Your task to perform on an android device: toggle location history Image 0: 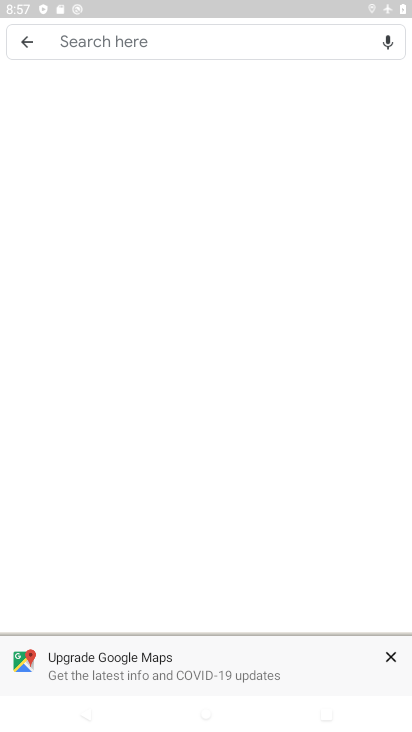
Step 0: click (263, 172)
Your task to perform on an android device: toggle location history Image 1: 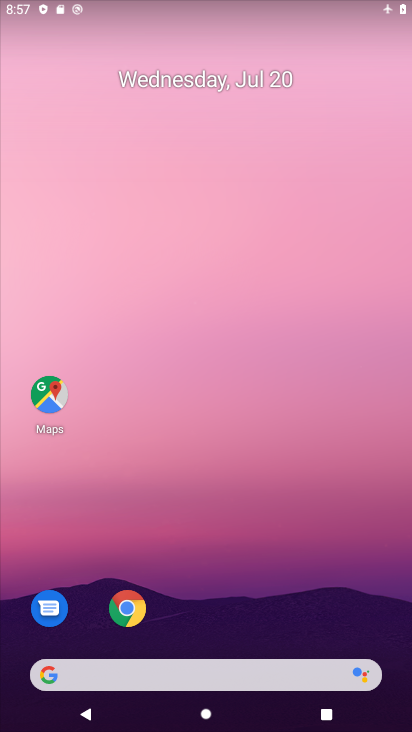
Step 1: drag from (257, 694) to (250, 121)
Your task to perform on an android device: toggle location history Image 2: 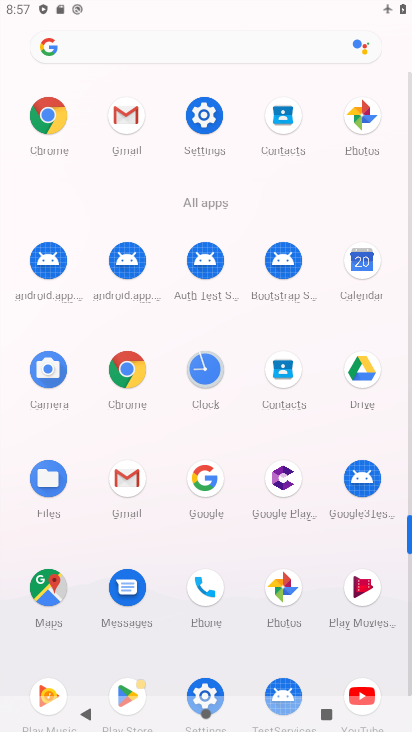
Step 2: click (218, 117)
Your task to perform on an android device: toggle location history Image 3: 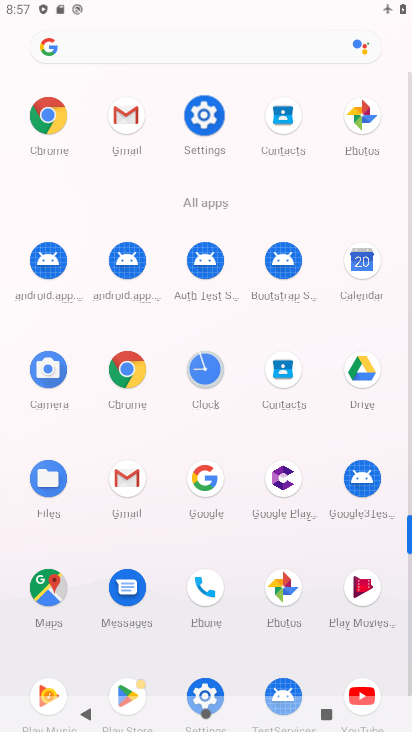
Step 3: click (216, 111)
Your task to perform on an android device: toggle location history Image 4: 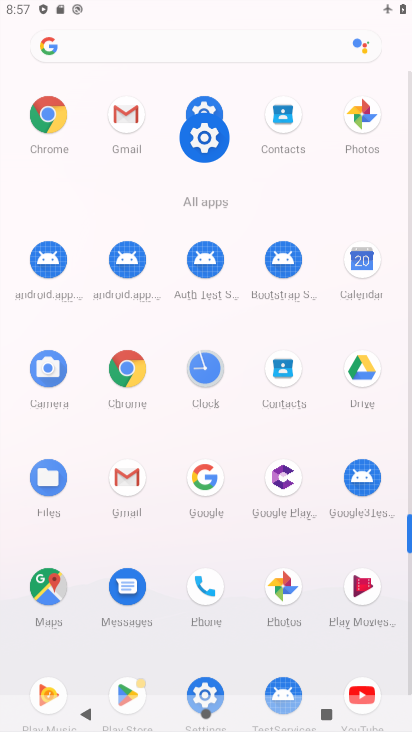
Step 4: click (216, 111)
Your task to perform on an android device: toggle location history Image 5: 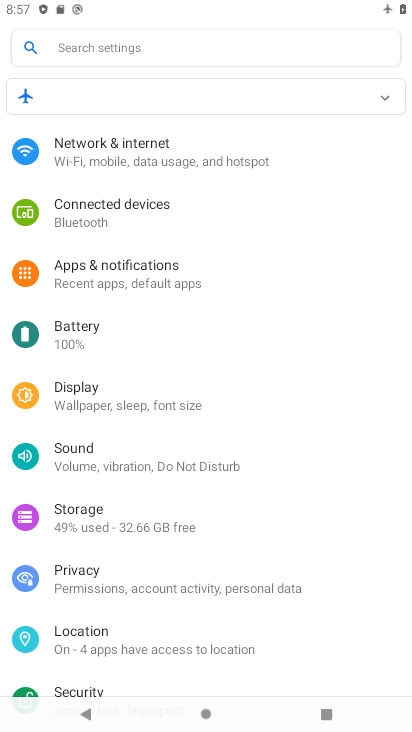
Step 5: click (90, 638)
Your task to perform on an android device: toggle location history Image 6: 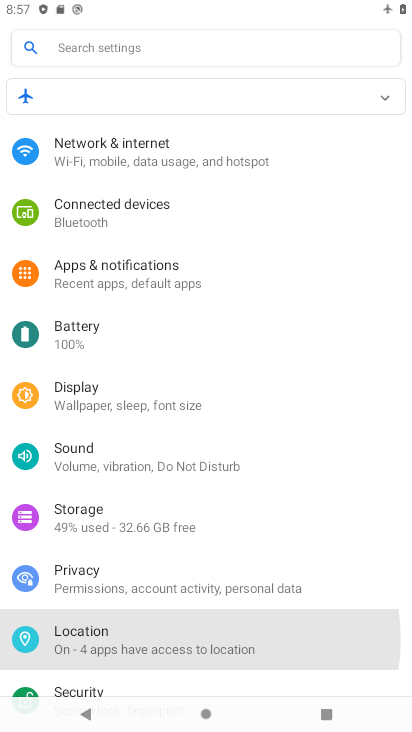
Step 6: click (91, 635)
Your task to perform on an android device: toggle location history Image 7: 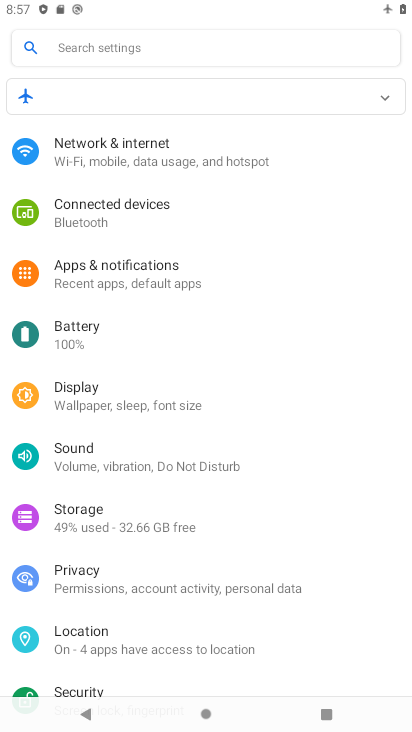
Step 7: click (91, 635)
Your task to perform on an android device: toggle location history Image 8: 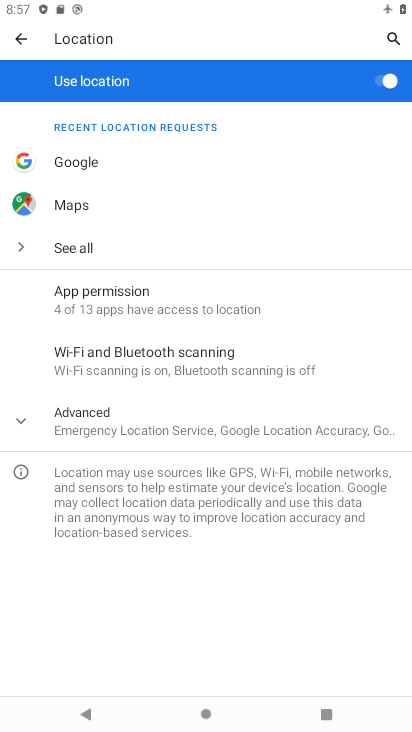
Step 8: click (87, 425)
Your task to perform on an android device: toggle location history Image 9: 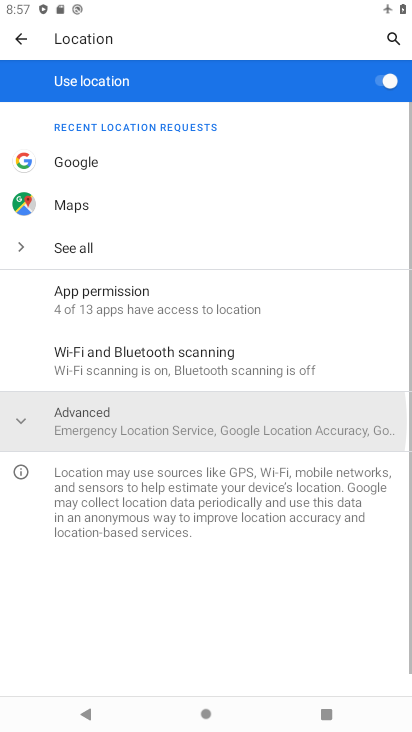
Step 9: click (88, 424)
Your task to perform on an android device: toggle location history Image 10: 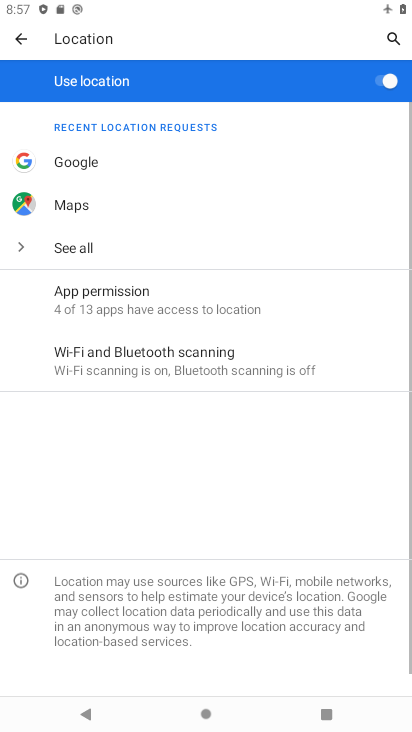
Step 10: click (92, 420)
Your task to perform on an android device: toggle location history Image 11: 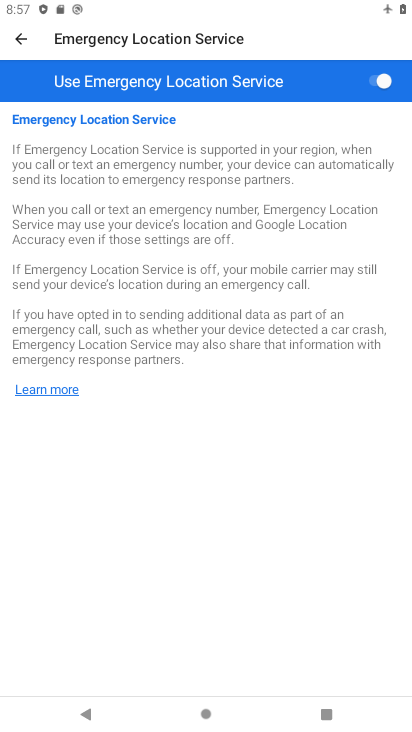
Step 11: click (15, 44)
Your task to perform on an android device: toggle location history Image 12: 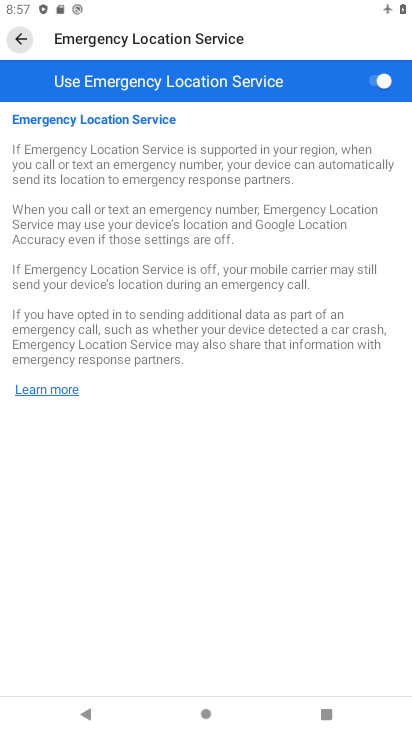
Step 12: click (20, 42)
Your task to perform on an android device: toggle location history Image 13: 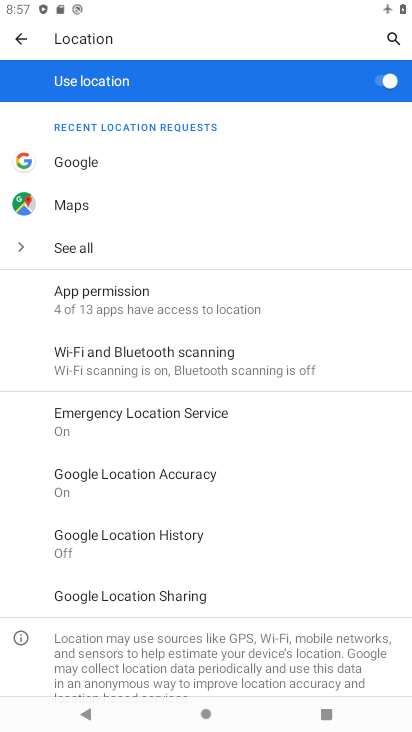
Step 13: click (119, 534)
Your task to perform on an android device: toggle location history Image 14: 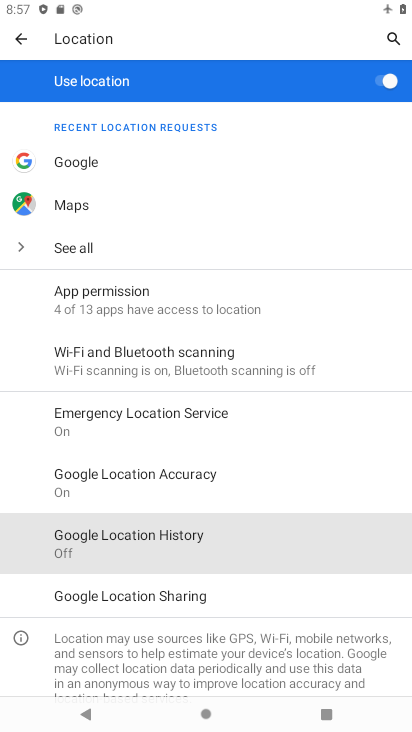
Step 14: click (121, 534)
Your task to perform on an android device: toggle location history Image 15: 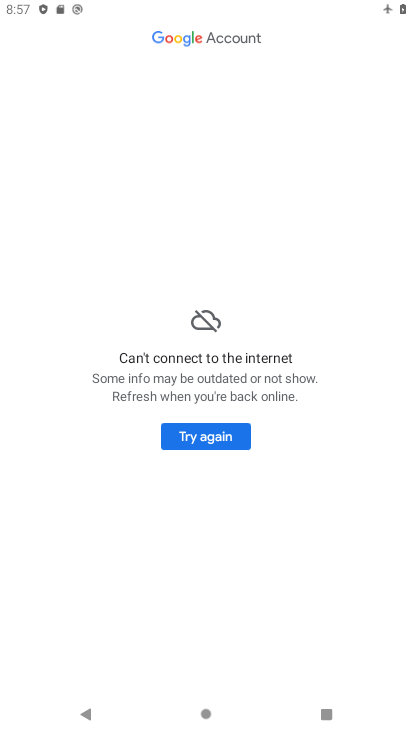
Step 15: task complete